Your task to perform on an android device: Open Google Chrome and click the shortcut for Amazon.com Image 0: 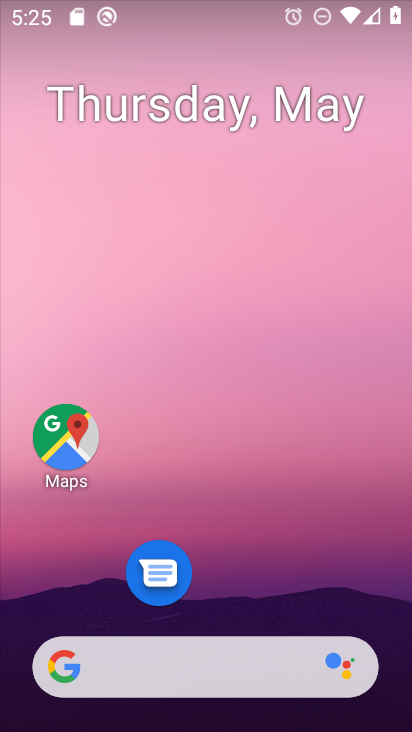
Step 0: drag from (251, 608) to (226, 46)
Your task to perform on an android device: Open Google Chrome and click the shortcut for Amazon.com Image 1: 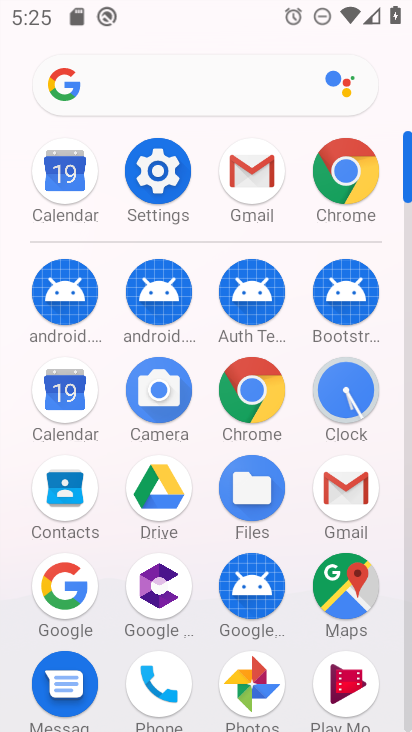
Step 1: click (332, 203)
Your task to perform on an android device: Open Google Chrome and click the shortcut for Amazon.com Image 2: 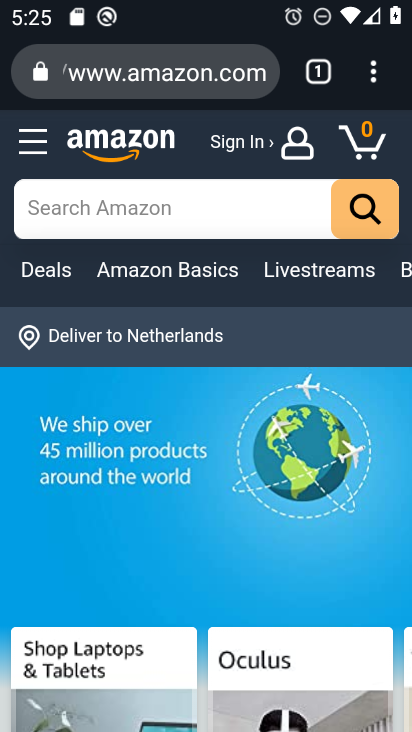
Step 2: press back button
Your task to perform on an android device: Open Google Chrome and click the shortcut for Amazon.com Image 3: 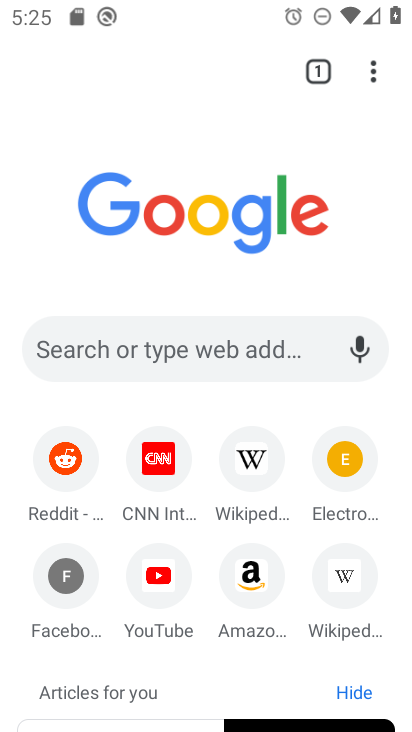
Step 3: click (248, 586)
Your task to perform on an android device: Open Google Chrome and click the shortcut for Amazon.com Image 4: 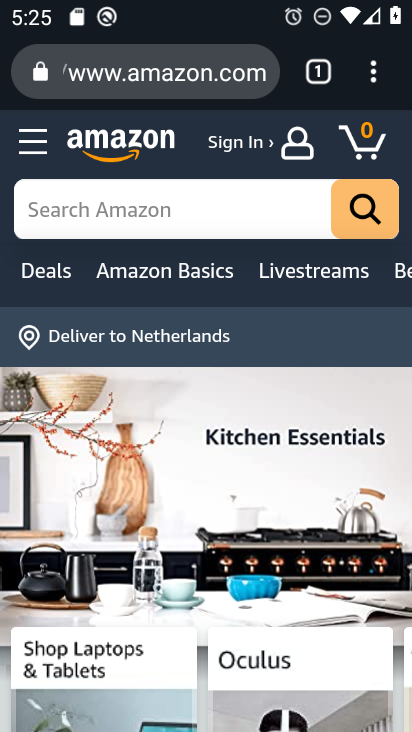
Step 4: task complete